Your task to perform on an android device: toggle notifications settings in the gmail app Image 0: 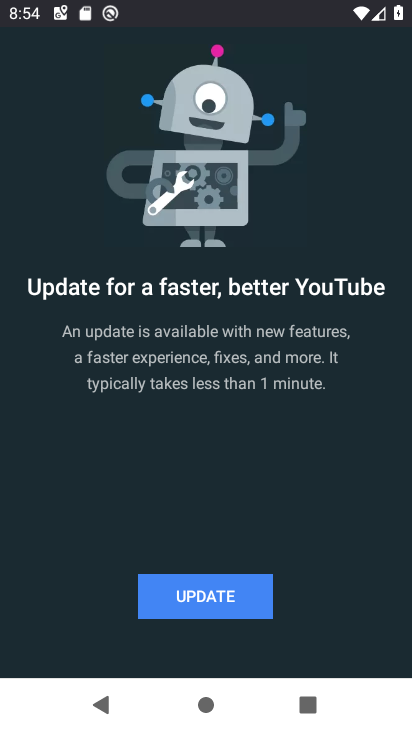
Step 0: press home button
Your task to perform on an android device: toggle notifications settings in the gmail app Image 1: 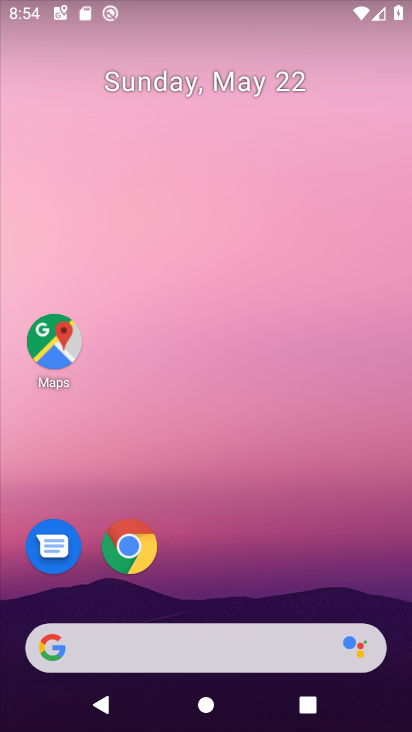
Step 1: drag from (360, 588) to (343, 86)
Your task to perform on an android device: toggle notifications settings in the gmail app Image 2: 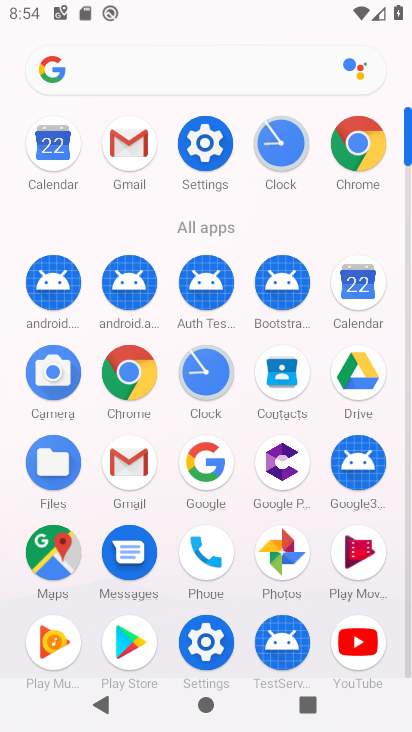
Step 2: click (139, 479)
Your task to perform on an android device: toggle notifications settings in the gmail app Image 3: 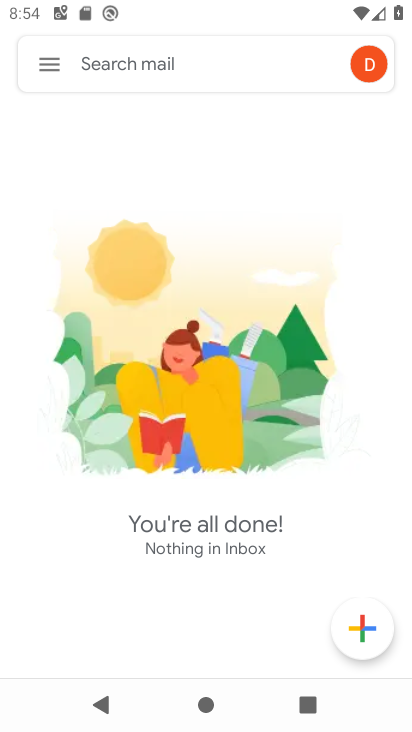
Step 3: click (48, 71)
Your task to perform on an android device: toggle notifications settings in the gmail app Image 4: 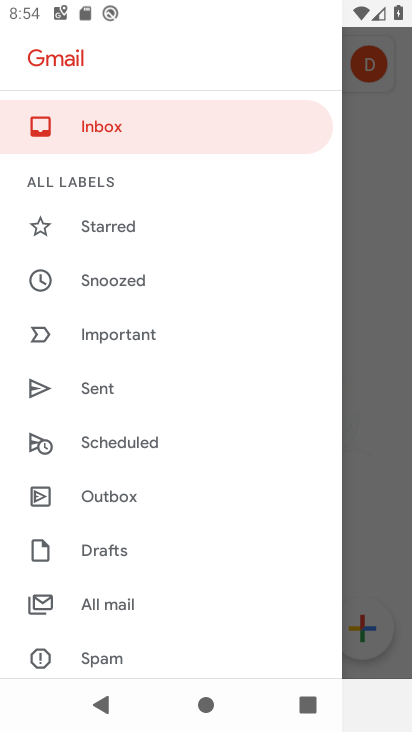
Step 4: drag from (256, 439) to (260, 300)
Your task to perform on an android device: toggle notifications settings in the gmail app Image 5: 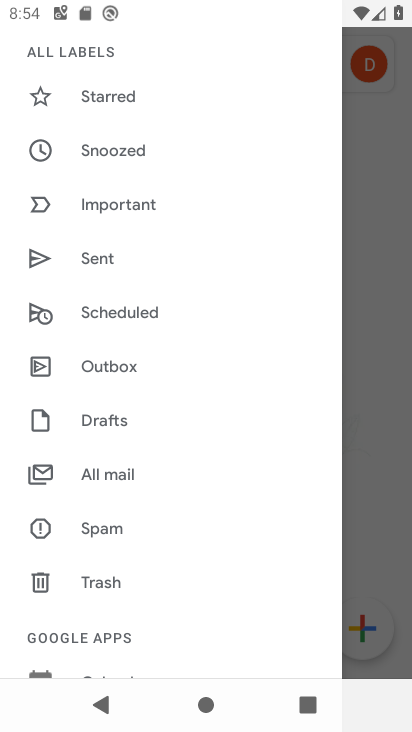
Step 5: drag from (275, 532) to (292, 410)
Your task to perform on an android device: toggle notifications settings in the gmail app Image 6: 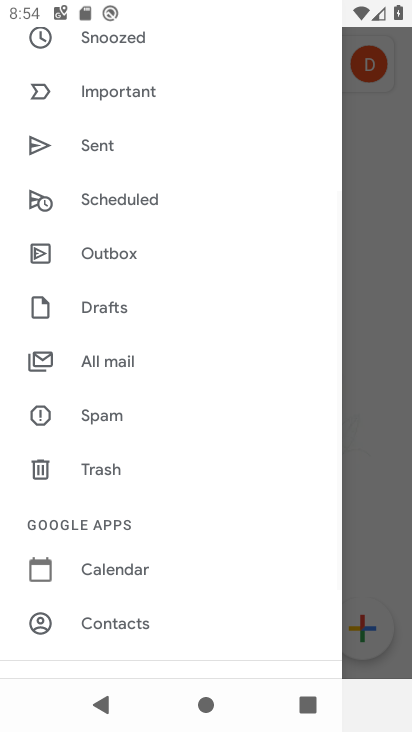
Step 6: drag from (255, 625) to (249, 470)
Your task to perform on an android device: toggle notifications settings in the gmail app Image 7: 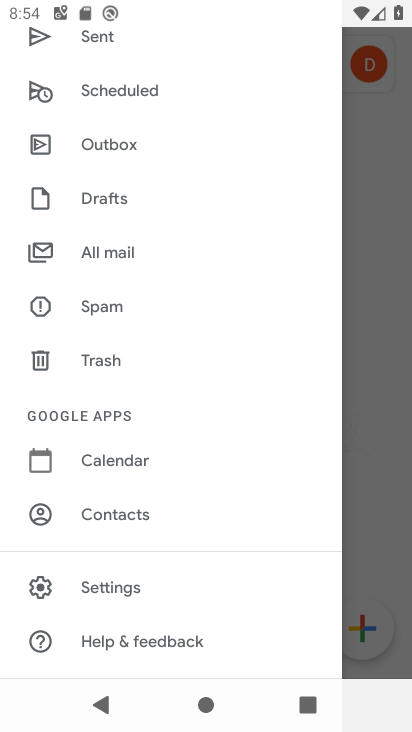
Step 7: click (160, 592)
Your task to perform on an android device: toggle notifications settings in the gmail app Image 8: 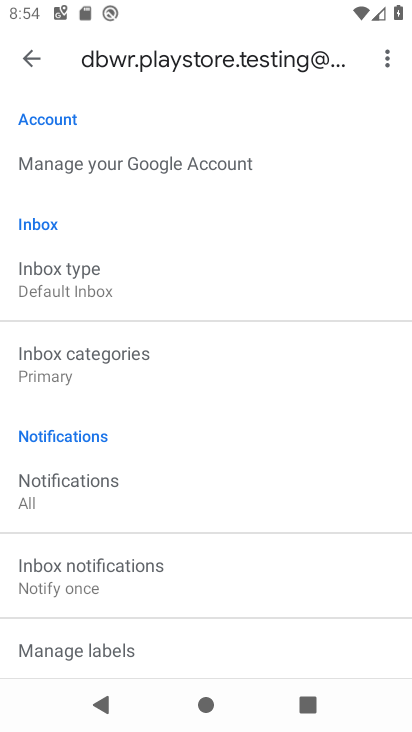
Step 8: drag from (264, 538) to (261, 414)
Your task to perform on an android device: toggle notifications settings in the gmail app Image 9: 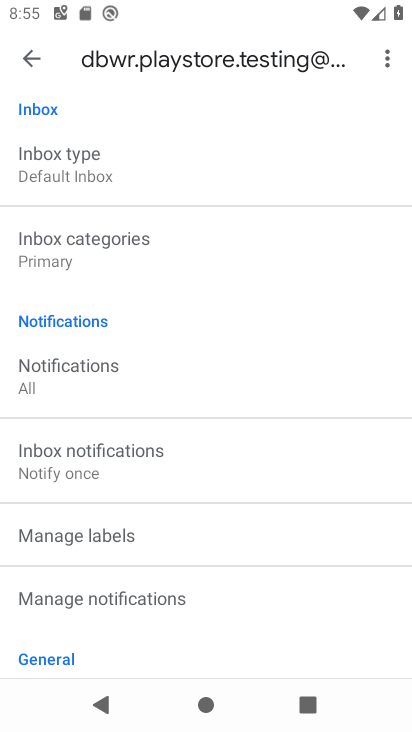
Step 9: drag from (291, 581) to (283, 462)
Your task to perform on an android device: toggle notifications settings in the gmail app Image 10: 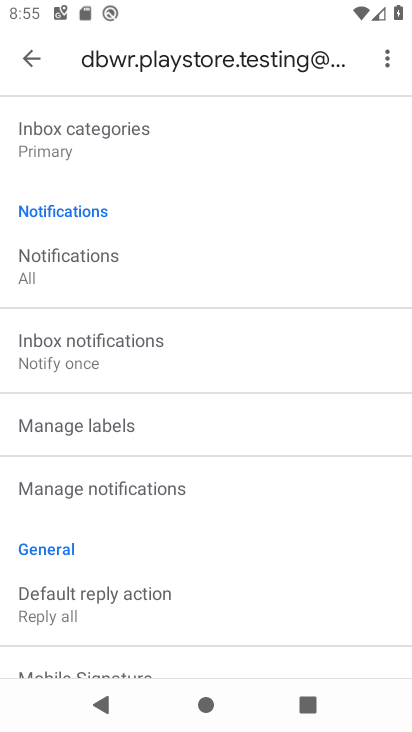
Step 10: drag from (304, 581) to (304, 451)
Your task to perform on an android device: toggle notifications settings in the gmail app Image 11: 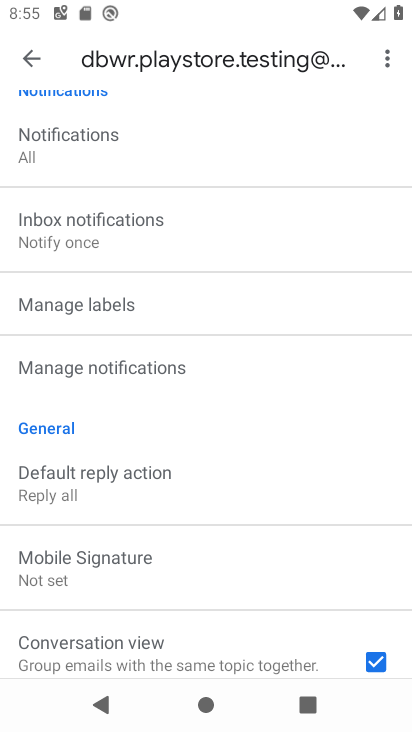
Step 11: drag from (321, 605) to (321, 458)
Your task to perform on an android device: toggle notifications settings in the gmail app Image 12: 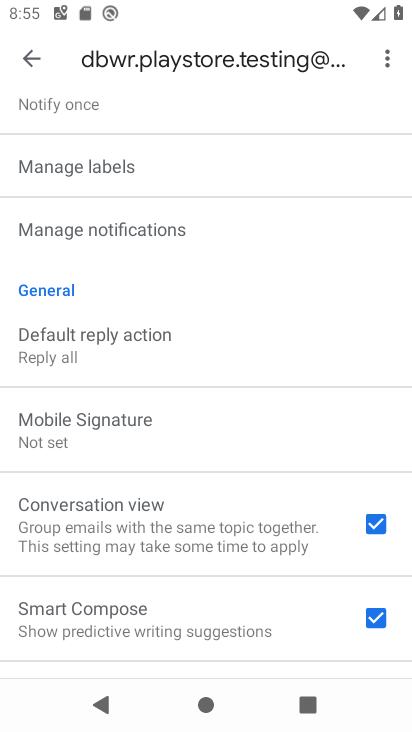
Step 12: drag from (301, 598) to (296, 481)
Your task to perform on an android device: toggle notifications settings in the gmail app Image 13: 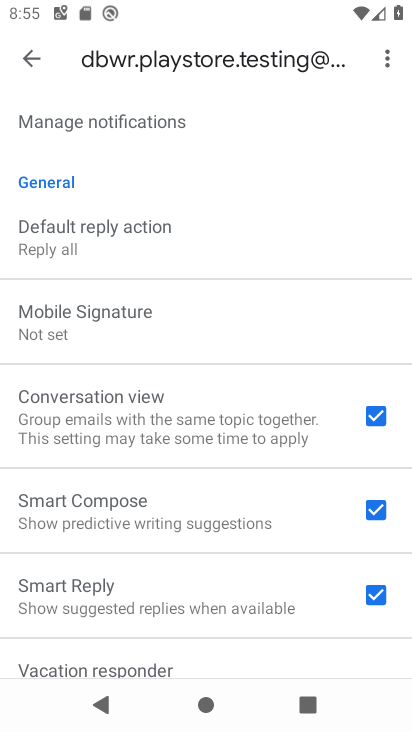
Step 13: drag from (299, 602) to (315, 456)
Your task to perform on an android device: toggle notifications settings in the gmail app Image 14: 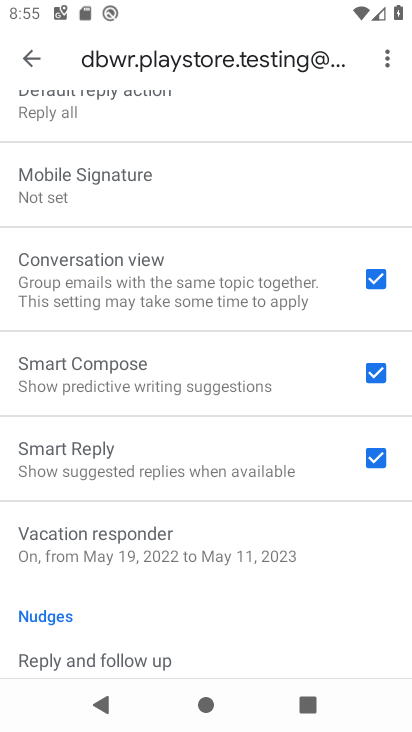
Step 14: drag from (324, 598) to (308, 497)
Your task to perform on an android device: toggle notifications settings in the gmail app Image 15: 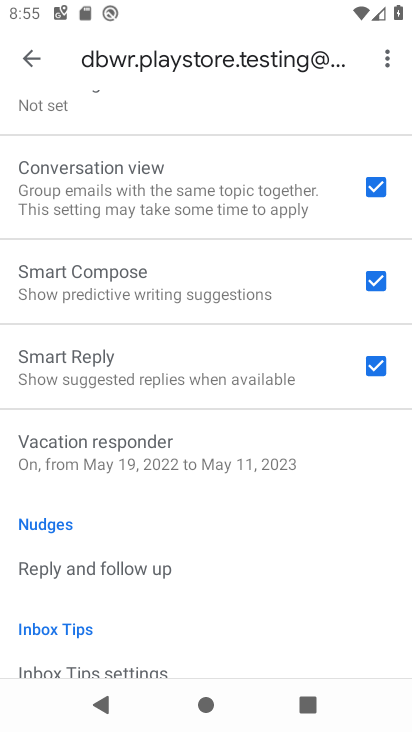
Step 15: drag from (283, 597) to (291, 462)
Your task to perform on an android device: toggle notifications settings in the gmail app Image 16: 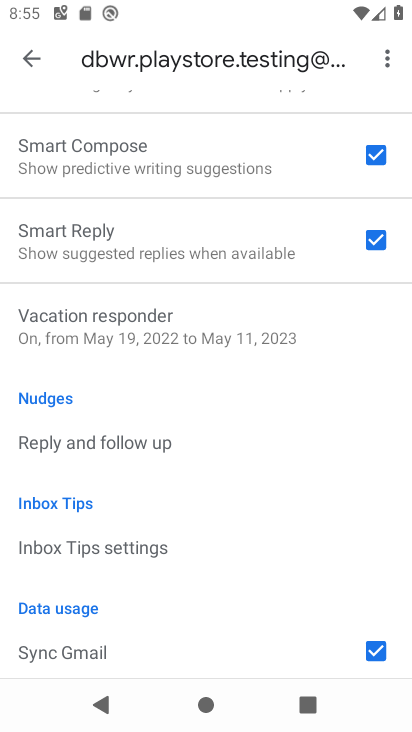
Step 16: drag from (302, 364) to (294, 494)
Your task to perform on an android device: toggle notifications settings in the gmail app Image 17: 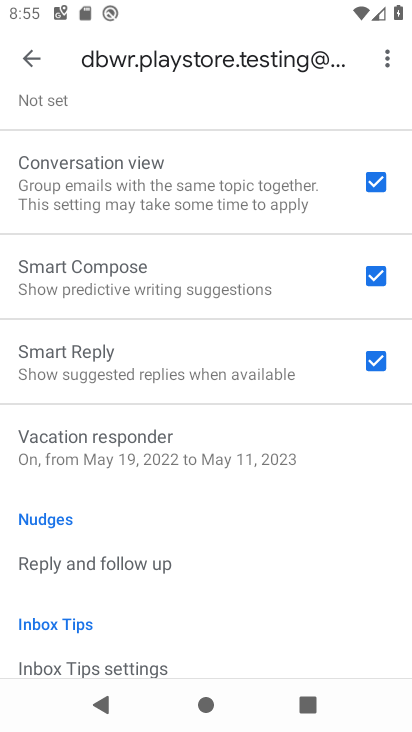
Step 17: drag from (295, 354) to (300, 447)
Your task to perform on an android device: toggle notifications settings in the gmail app Image 18: 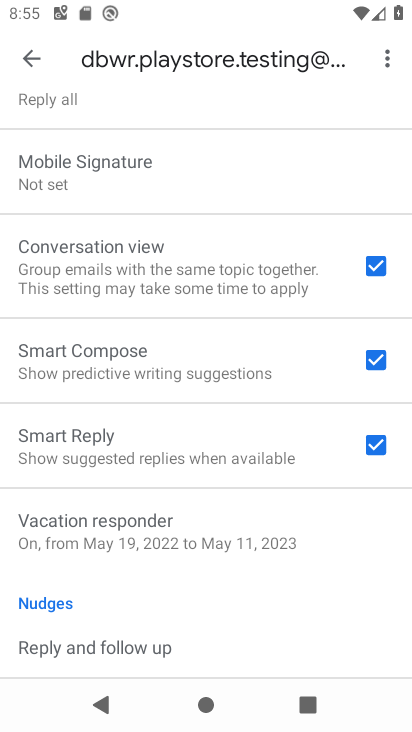
Step 18: drag from (307, 348) to (309, 433)
Your task to perform on an android device: toggle notifications settings in the gmail app Image 19: 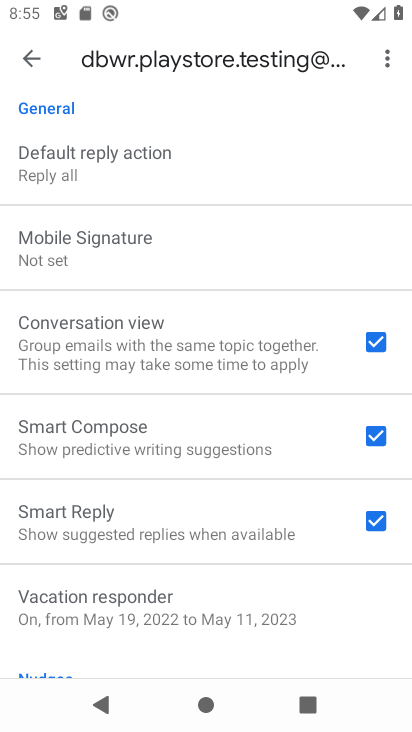
Step 19: drag from (311, 295) to (298, 429)
Your task to perform on an android device: toggle notifications settings in the gmail app Image 20: 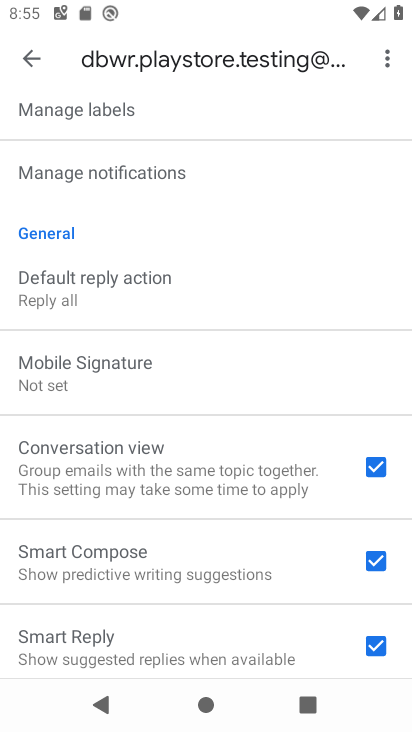
Step 20: drag from (293, 311) to (290, 426)
Your task to perform on an android device: toggle notifications settings in the gmail app Image 21: 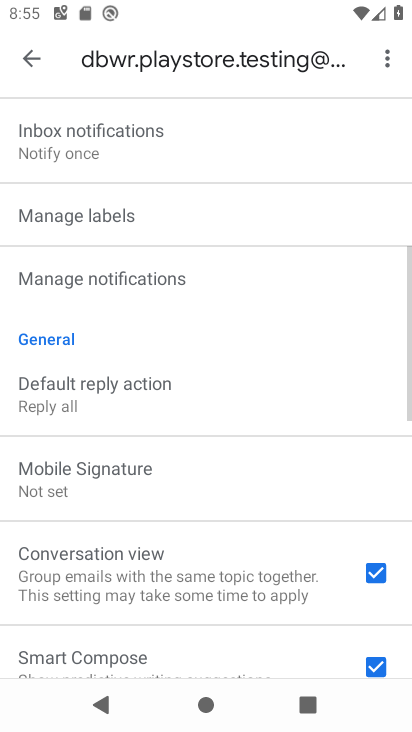
Step 21: click (214, 271)
Your task to perform on an android device: toggle notifications settings in the gmail app Image 22: 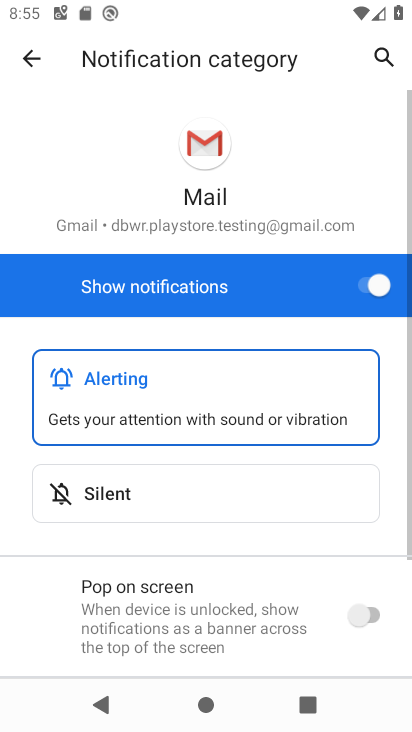
Step 22: click (372, 285)
Your task to perform on an android device: toggle notifications settings in the gmail app Image 23: 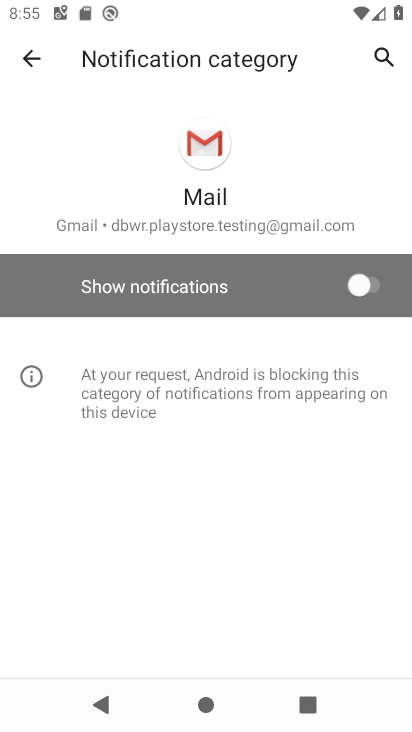
Step 23: task complete